Your task to perform on an android device: move a message to another label in the gmail app Image 0: 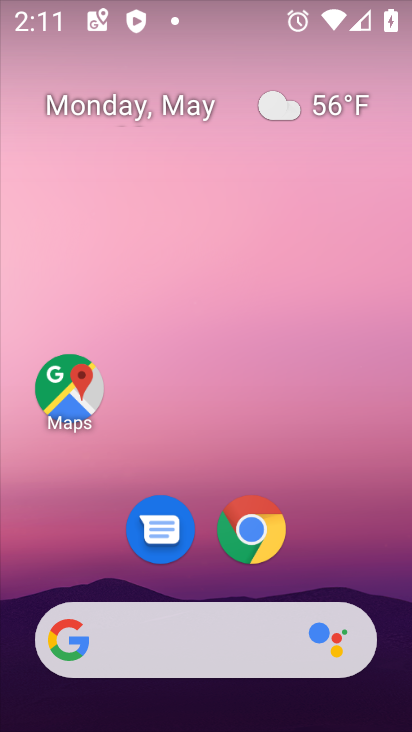
Step 0: drag from (308, 570) to (356, 137)
Your task to perform on an android device: move a message to another label in the gmail app Image 1: 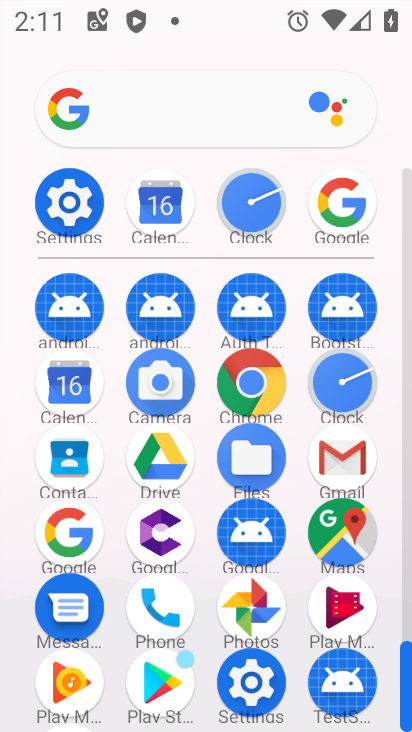
Step 1: click (337, 458)
Your task to perform on an android device: move a message to another label in the gmail app Image 2: 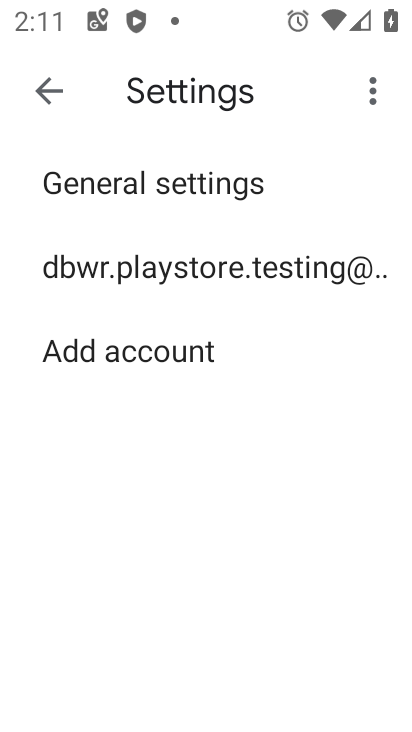
Step 2: click (37, 93)
Your task to perform on an android device: move a message to another label in the gmail app Image 3: 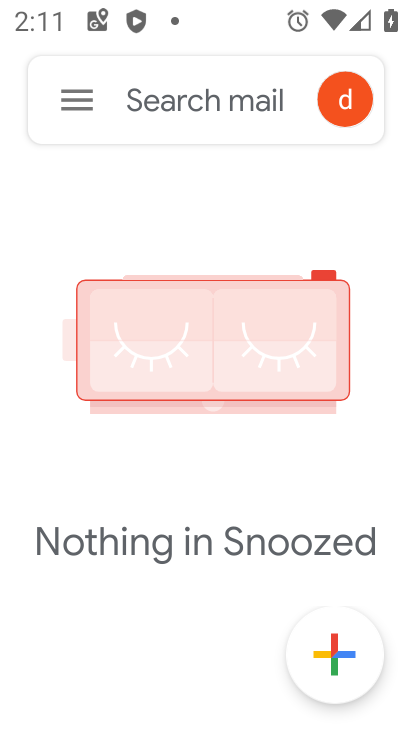
Step 3: click (86, 85)
Your task to perform on an android device: move a message to another label in the gmail app Image 4: 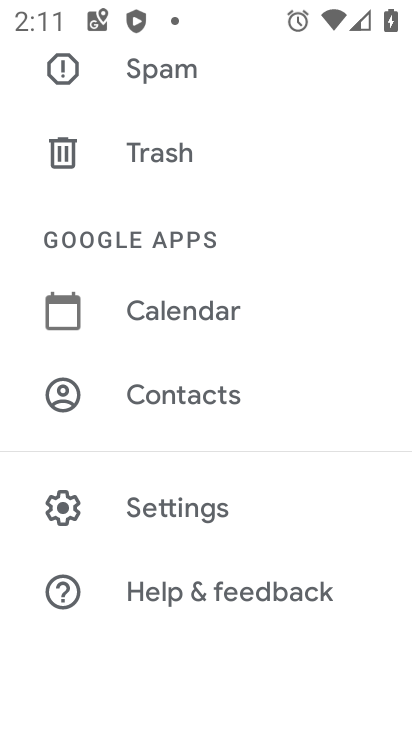
Step 4: drag from (177, 105) to (228, 219)
Your task to perform on an android device: move a message to another label in the gmail app Image 5: 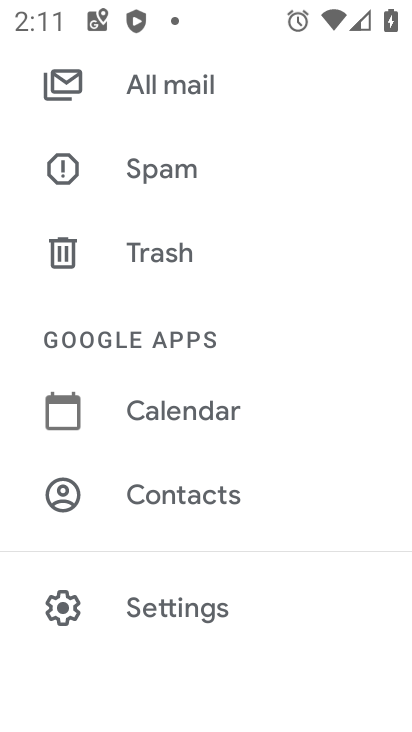
Step 5: drag from (211, 167) to (223, 259)
Your task to perform on an android device: move a message to another label in the gmail app Image 6: 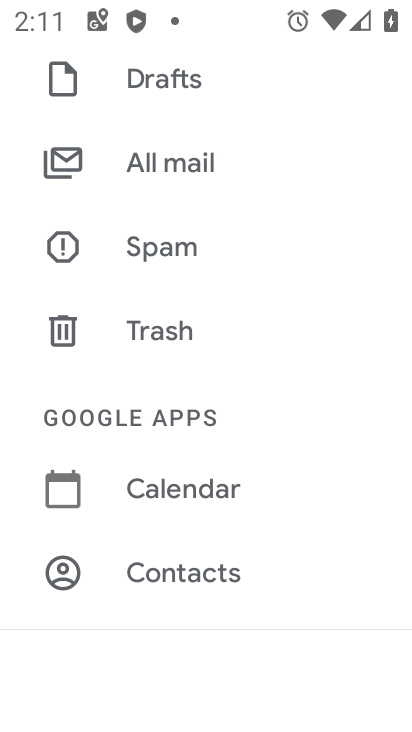
Step 6: click (193, 173)
Your task to perform on an android device: move a message to another label in the gmail app Image 7: 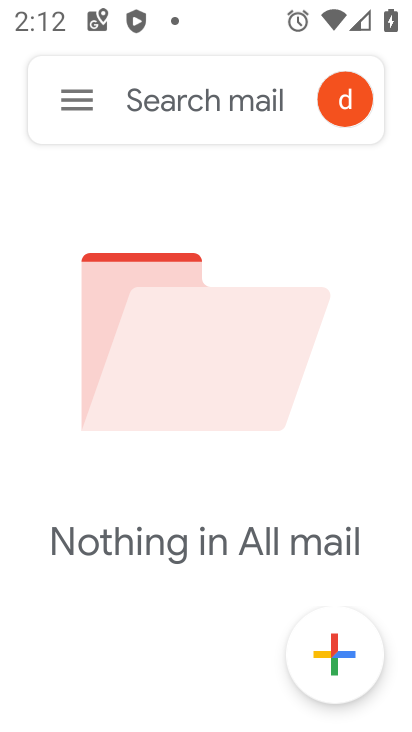
Step 7: task complete